Your task to perform on an android device: What's on my calendar tomorrow? Image 0: 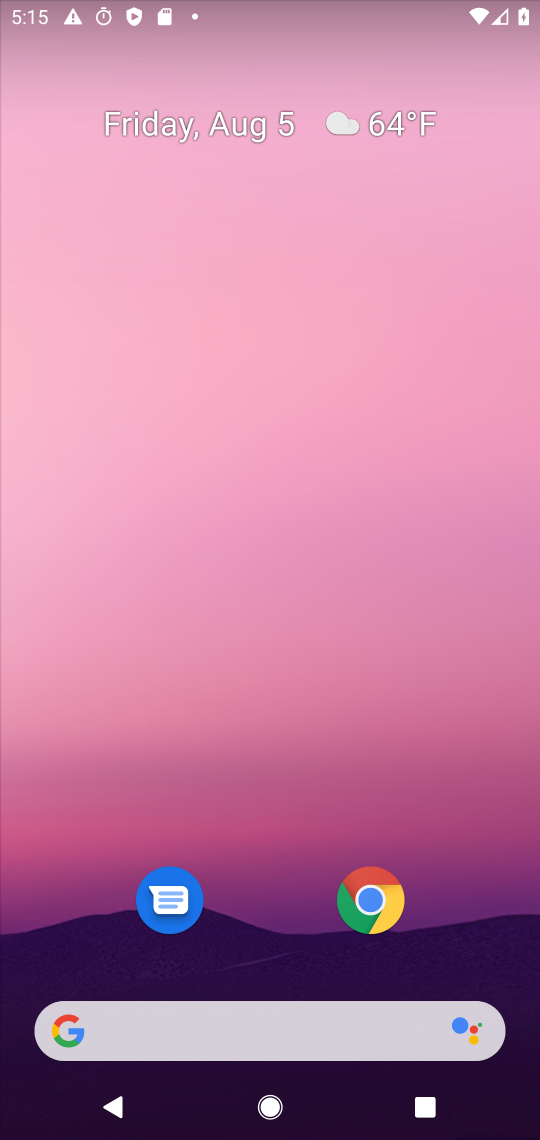
Step 0: drag from (261, 1028) to (319, 52)
Your task to perform on an android device: What's on my calendar tomorrow? Image 1: 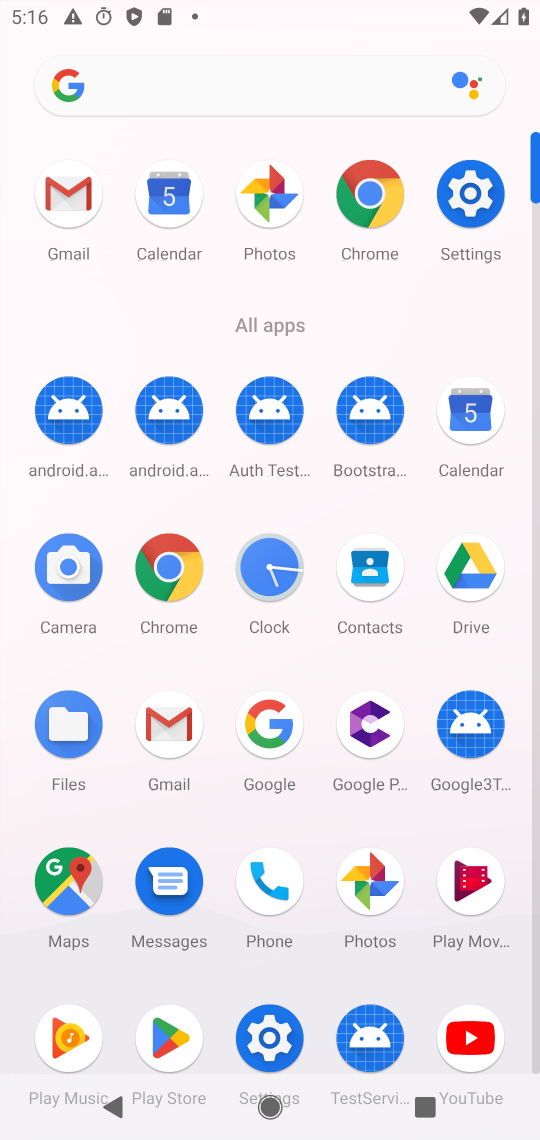
Step 1: click (496, 413)
Your task to perform on an android device: What's on my calendar tomorrow? Image 2: 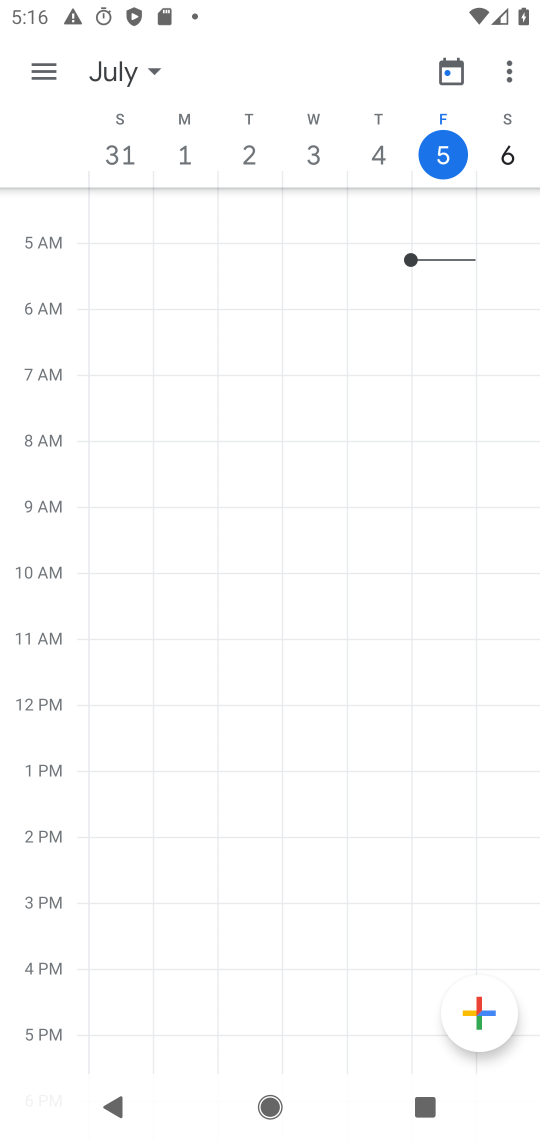
Step 2: click (48, 75)
Your task to perform on an android device: What's on my calendar tomorrow? Image 3: 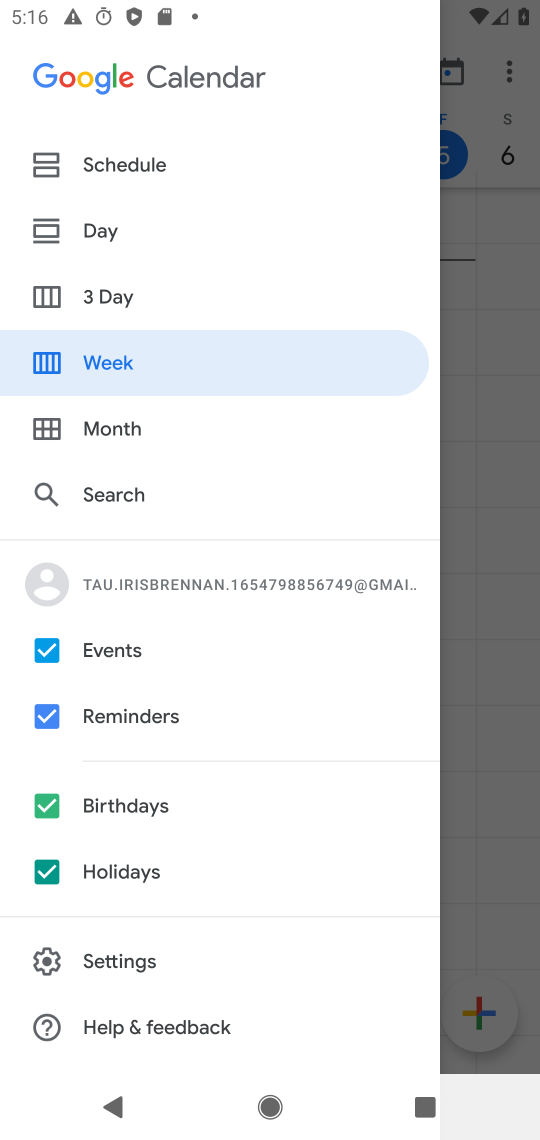
Step 3: click (120, 303)
Your task to perform on an android device: What's on my calendar tomorrow? Image 4: 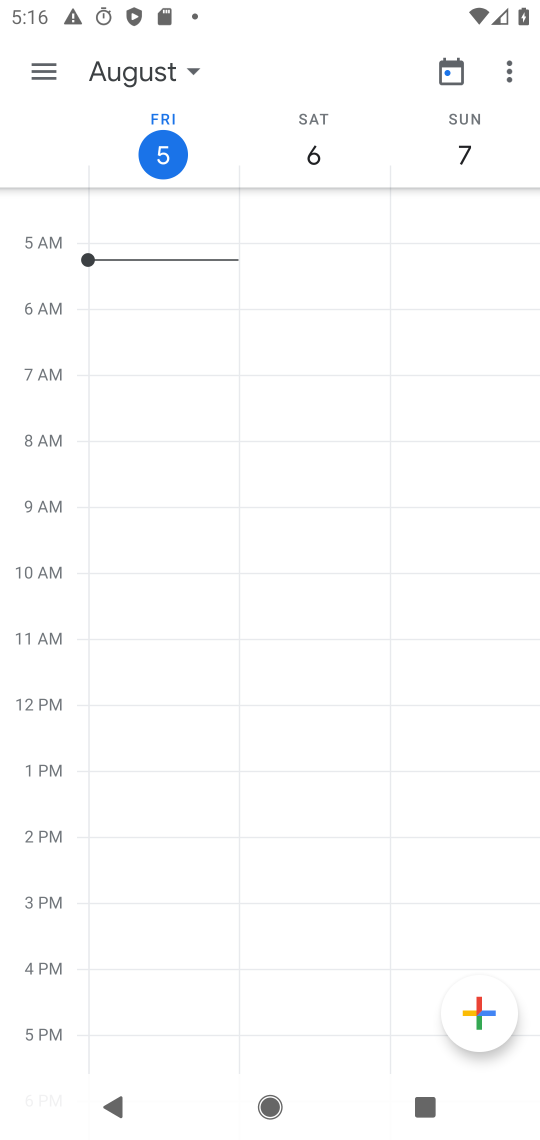
Step 4: click (304, 157)
Your task to perform on an android device: What's on my calendar tomorrow? Image 5: 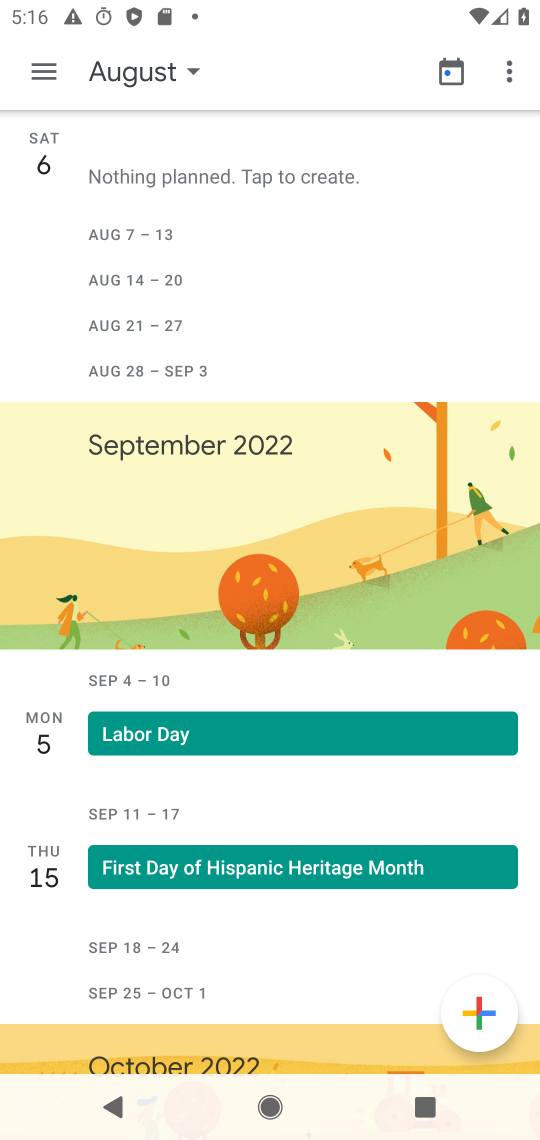
Step 5: task complete